Your task to perform on an android device: open sync settings in chrome Image 0: 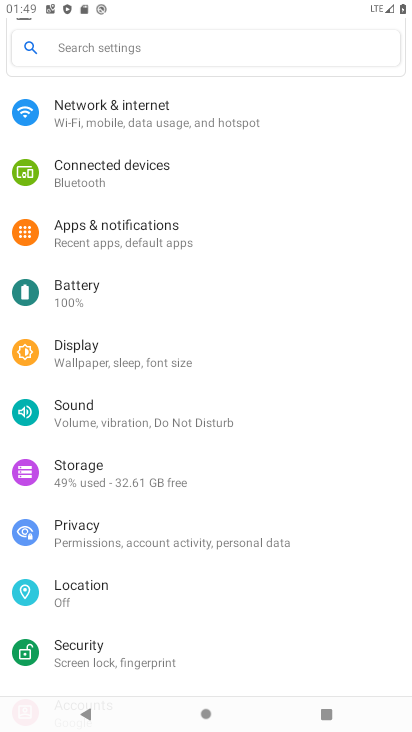
Step 0: press home button
Your task to perform on an android device: open sync settings in chrome Image 1: 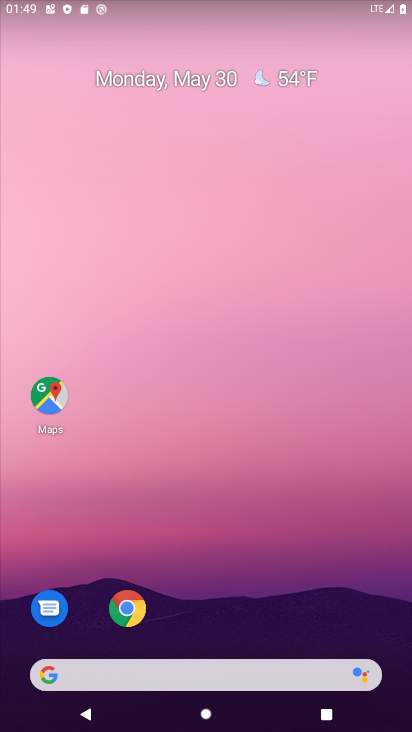
Step 1: click (123, 603)
Your task to perform on an android device: open sync settings in chrome Image 2: 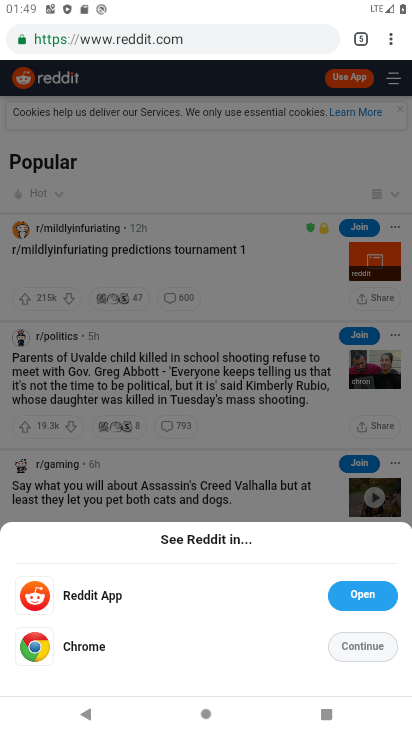
Step 2: click (398, 34)
Your task to perform on an android device: open sync settings in chrome Image 3: 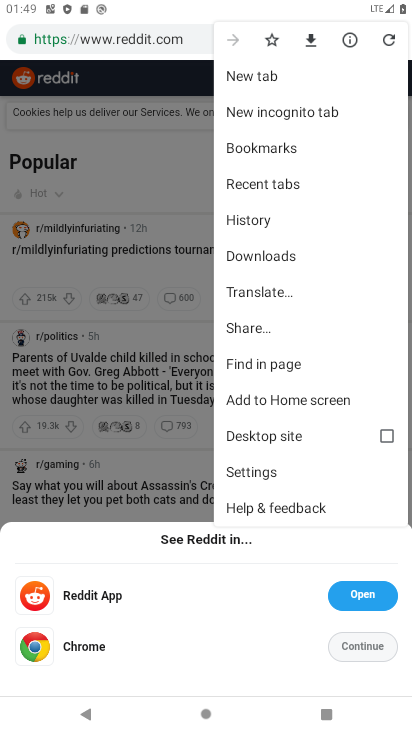
Step 3: click (269, 469)
Your task to perform on an android device: open sync settings in chrome Image 4: 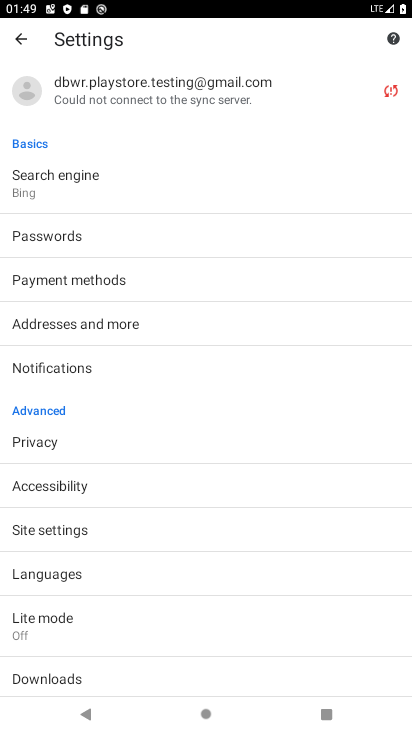
Step 4: click (137, 78)
Your task to perform on an android device: open sync settings in chrome Image 5: 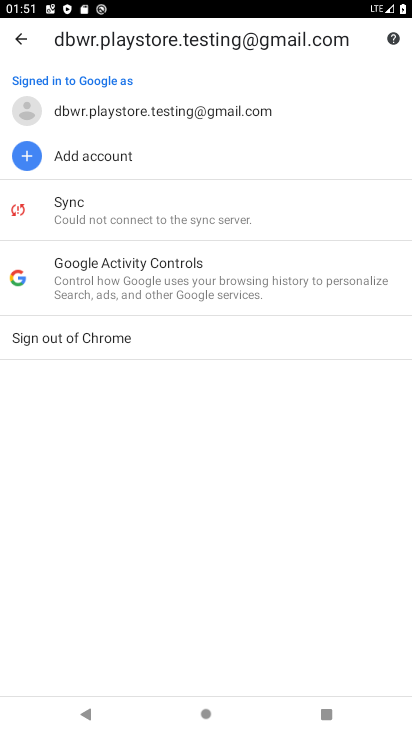
Step 5: task complete